Your task to perform on an android device: Search for the best way to make a resume. Image 0: 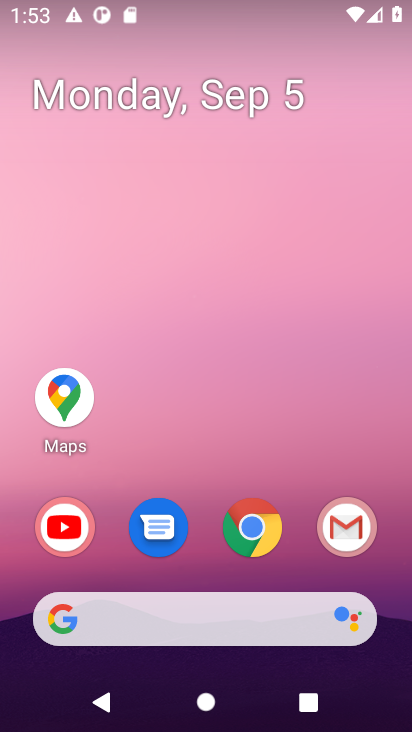
Step 0: click (241, 531)
Your task to perform on an android device: Search for the best way to make a resume. Image 1: 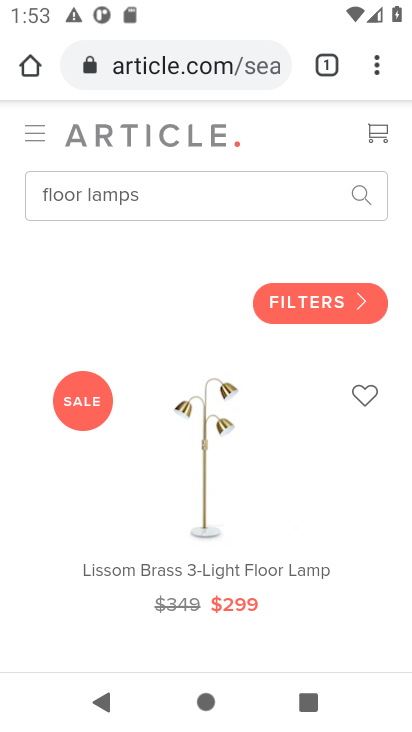
Step 1: click (230, 62)
Your task to perform on an android device: Search for the best way to make a resume. Image 2: 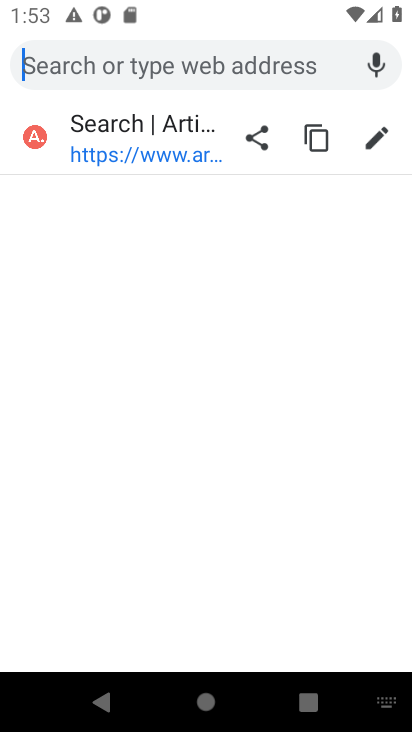
Step 2: type "the best way to make a resume."
Your task to perform on an android device: Search for the best way to make a resume. Image 3: 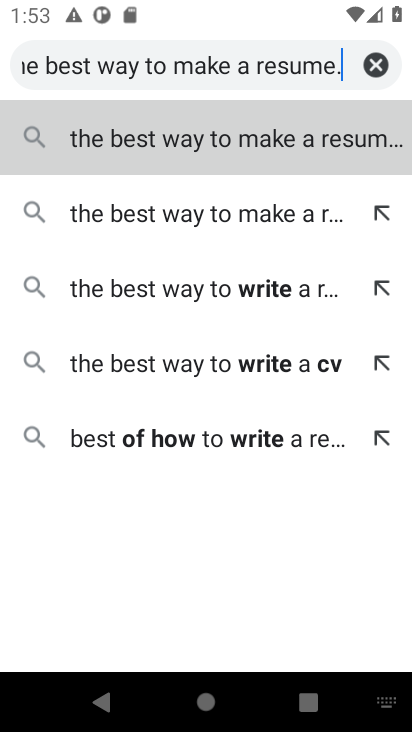
Step 3: click (336, 121)
Your task to perform on an android device: Search for the best way to make a resume. Image 4: 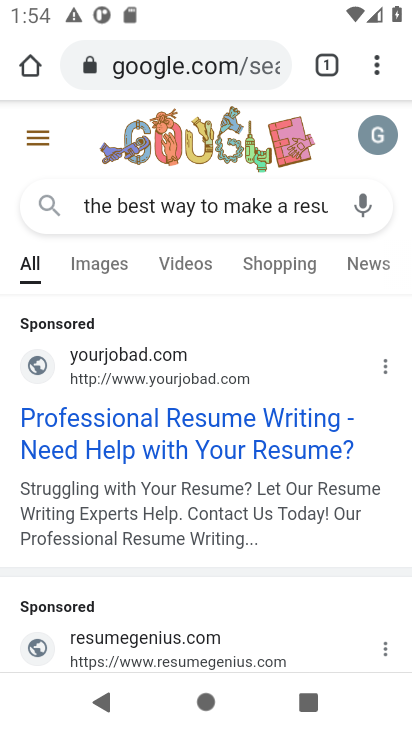
Step 4: task complete